Your task to perform on an android device: change the clock display to analog Image 0: 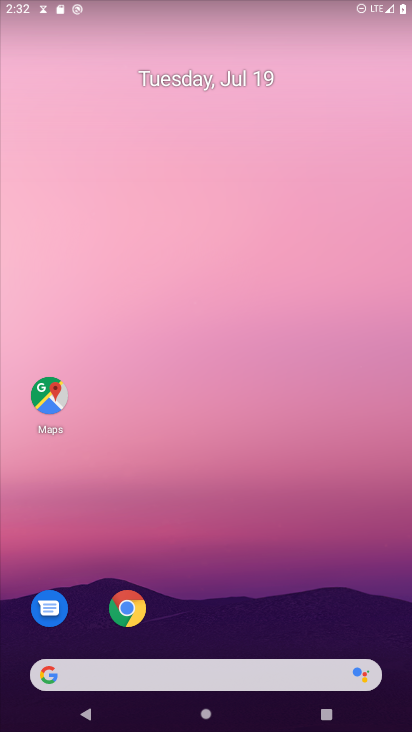
Step 0: drag from (265, 680) to (340, 4)
Your task to perform on an android device: change the clock display to analog Image 1: 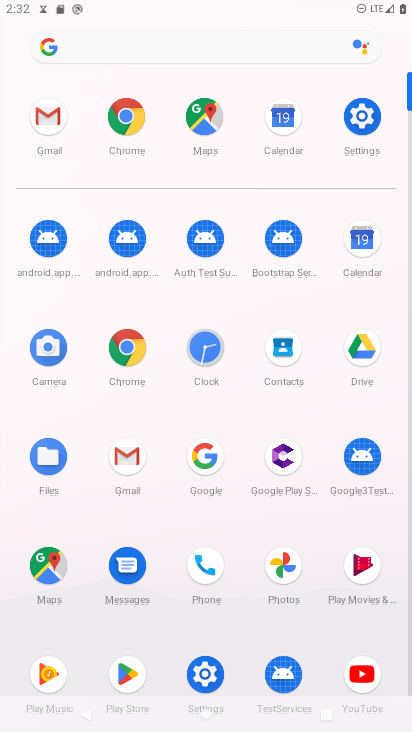
Step 1: click (198, 348)
Your task to perform on an android device: change the clock display to analog Image 2: 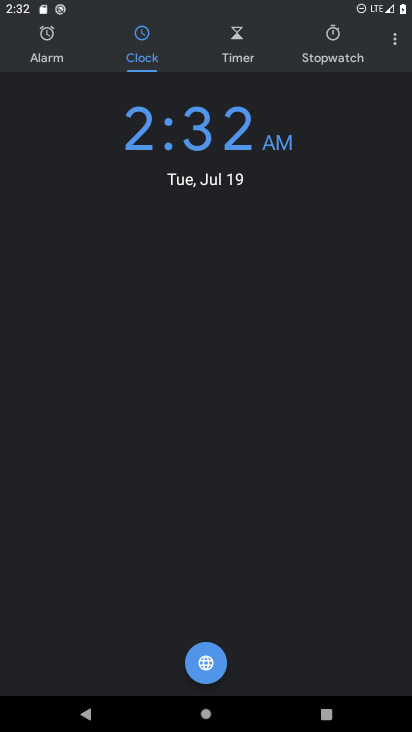
Step 2: click (394, 40)
Your task to perform on an android device: change the clock display to analog Image 3: 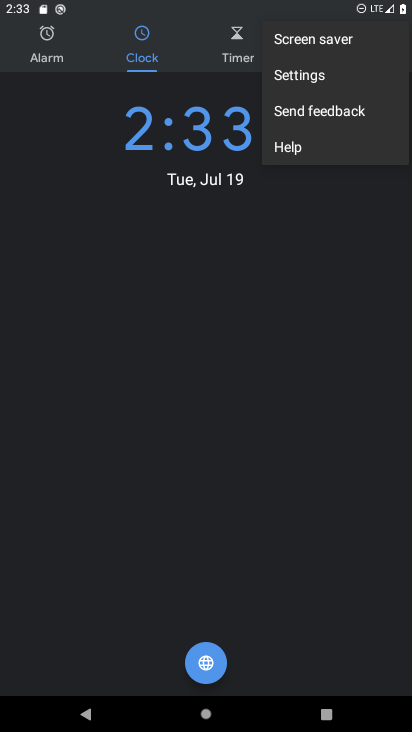
Step 3: click (336, 78)
Your task to perform on an android device: change the clock display to analog Image 4: 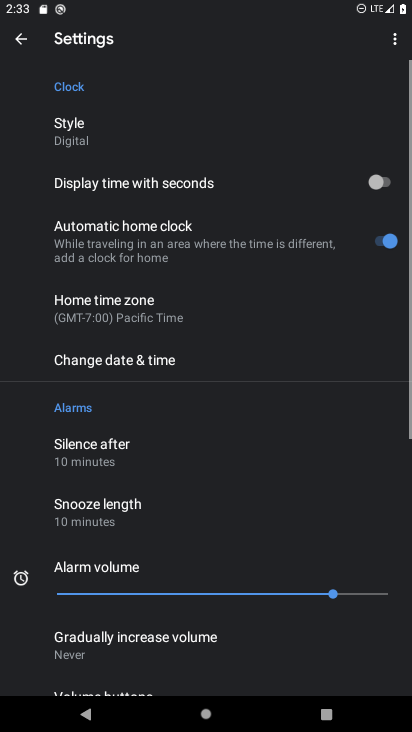
Step 4: click (81, 134)
Your task to perform on an android device: change the clock display to analog Image 5: 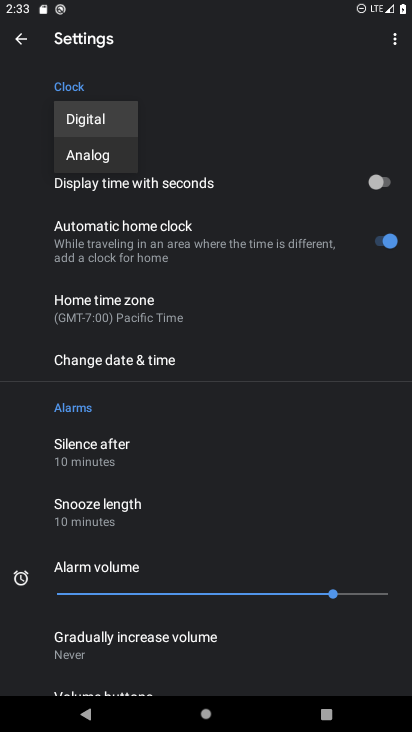
Step 5: click (98, 159)
Your task to perform on an android device: change the clock display to analog Image 6: 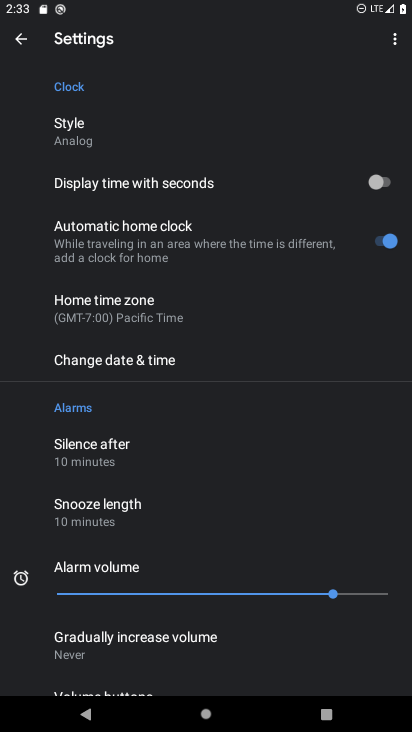
Step 6: task complete